Your task to perform on an android device: Open my contact list Image 0: 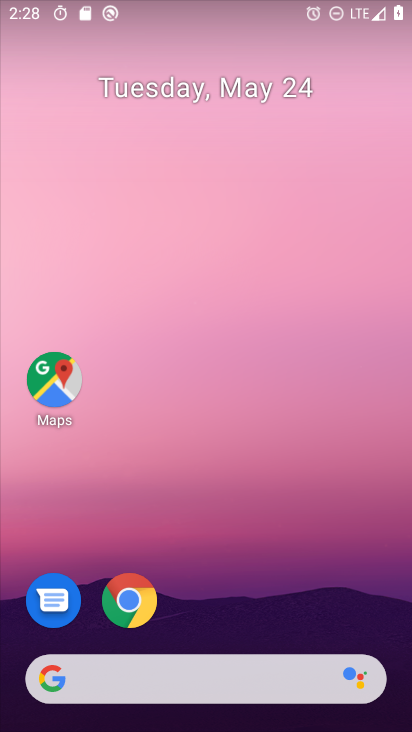
Step 0: drag from (280, 591) to (289, 203)
Your task to perform on an android device: Open my contact list Image 1: 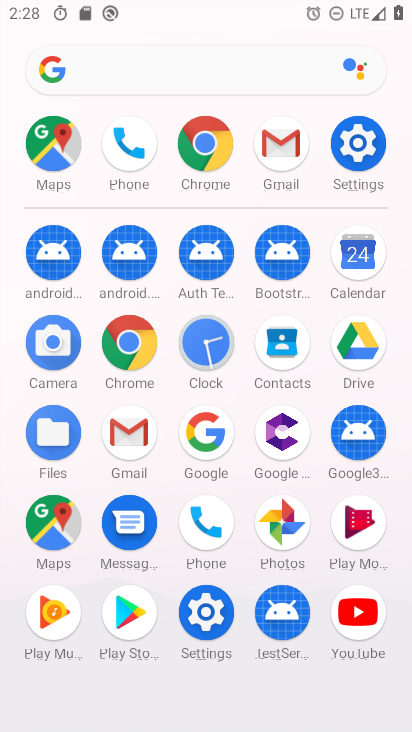
Step 1: click (283, 352)
Your task to perform on an android device: Open my contact list Image 2: 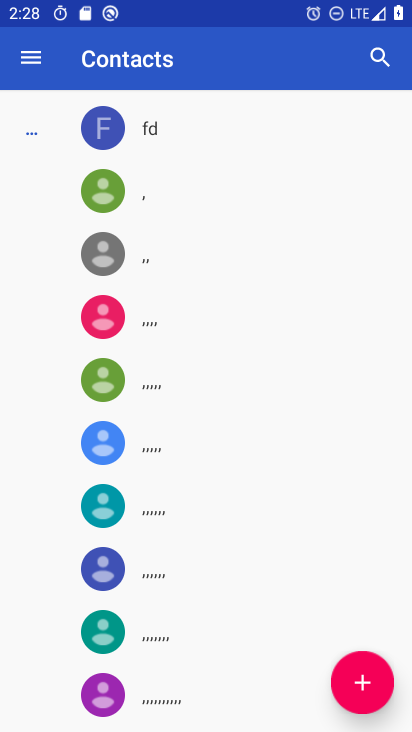
Step 2: task complete